Your task to perform on an android device: open app "Google Keep" (install if not already installed) Image 0: 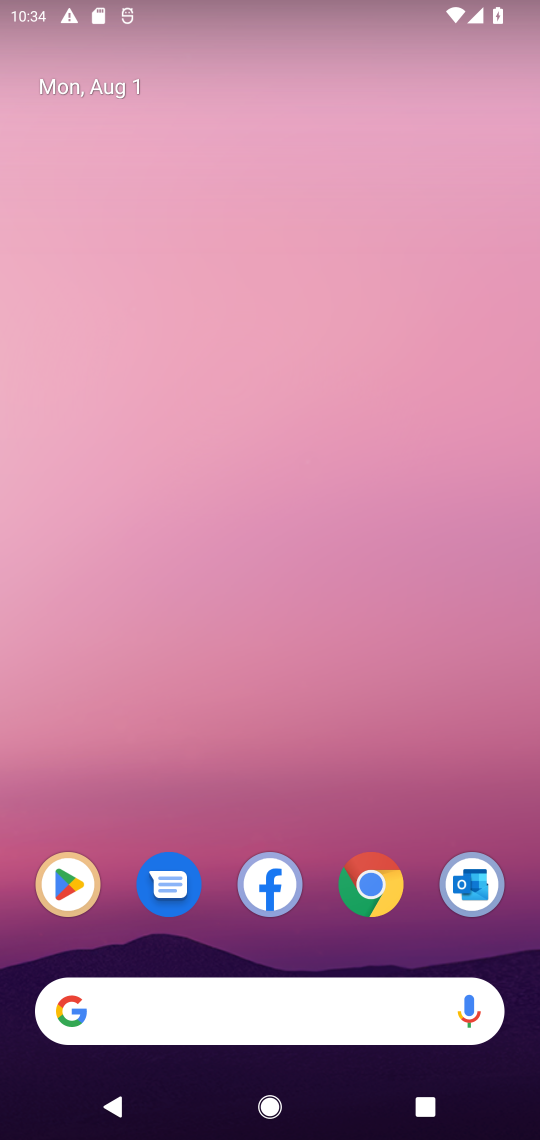
Step 0: click (82, 873)
Your task to perform on an android device: open app "Google Keep" (install if not already installed) Image 1: 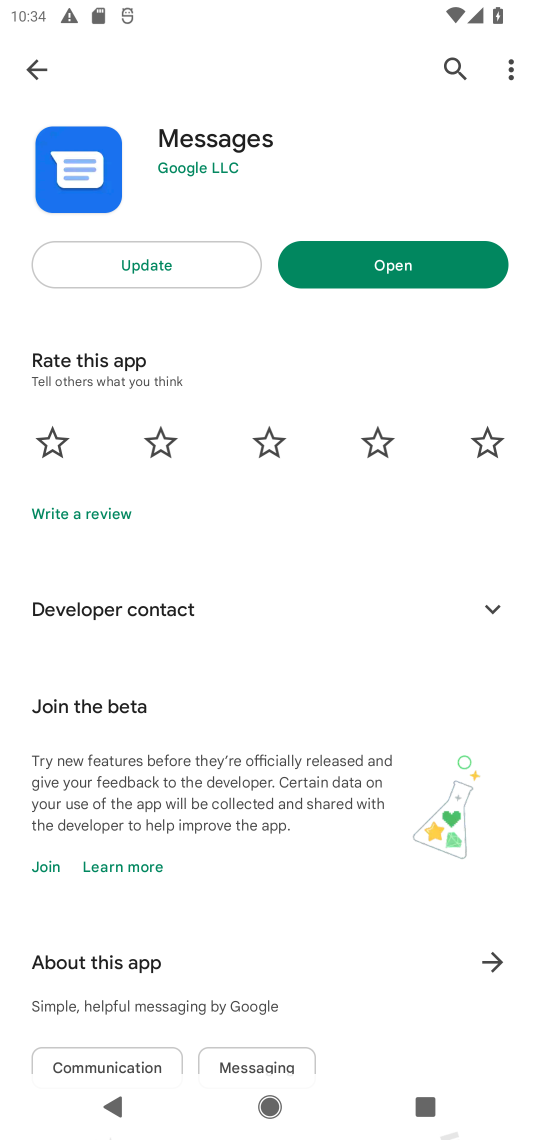
Step 1: click (442, 72)
Your task to perform on an android device: open app "Google Keep" (install if not already installed) Image 2: 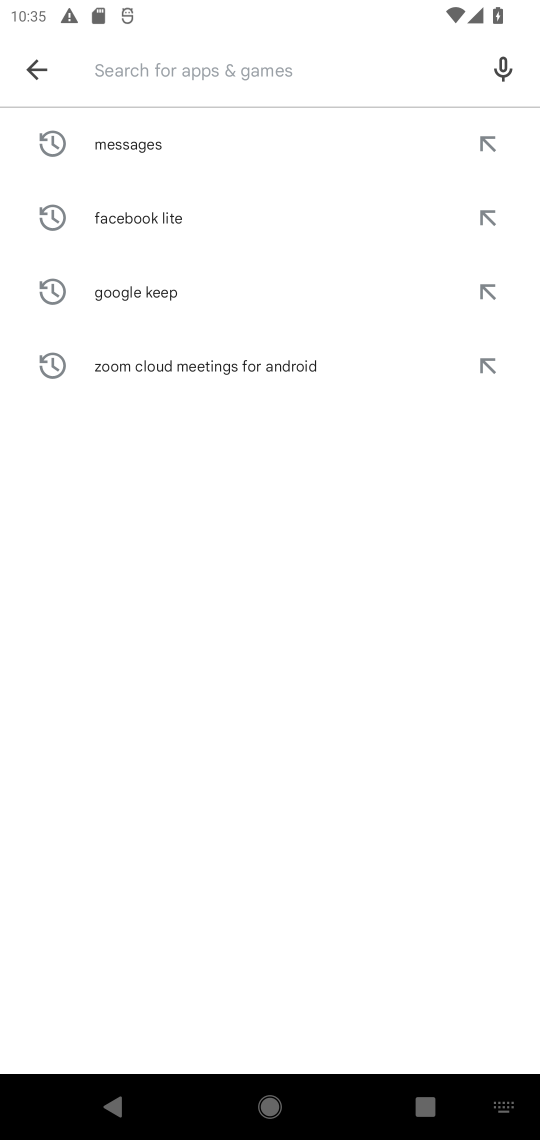
Step 2: type "google keep"
Your task to perform on an android device: open app "Google Keep" (install if not already installed) Image 3: 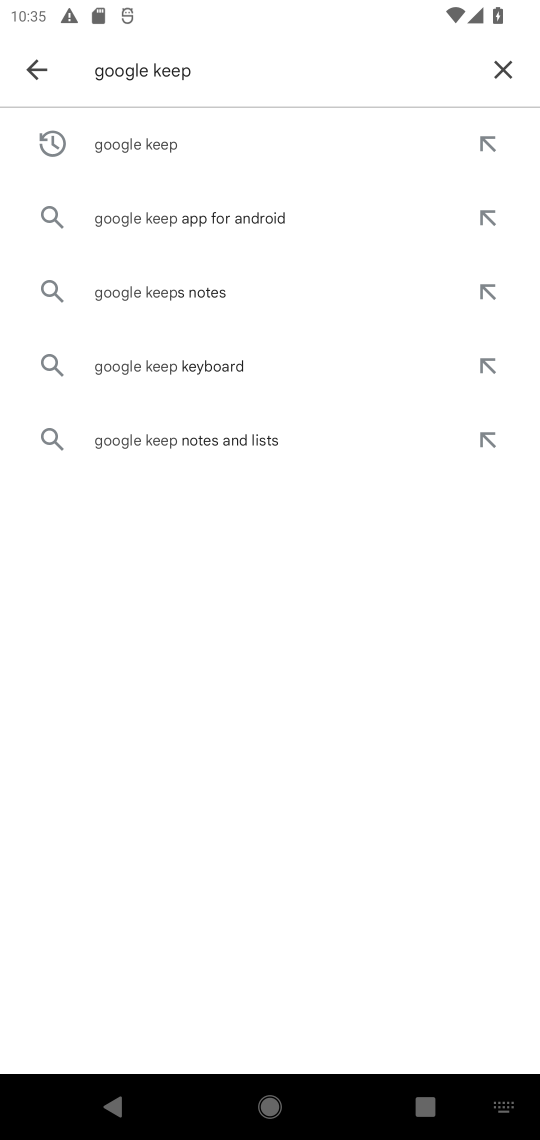
Step 3: click (140, 131)
Your task to perform on an android device: open app "Google Keep" (install if not already installed) Image 4: 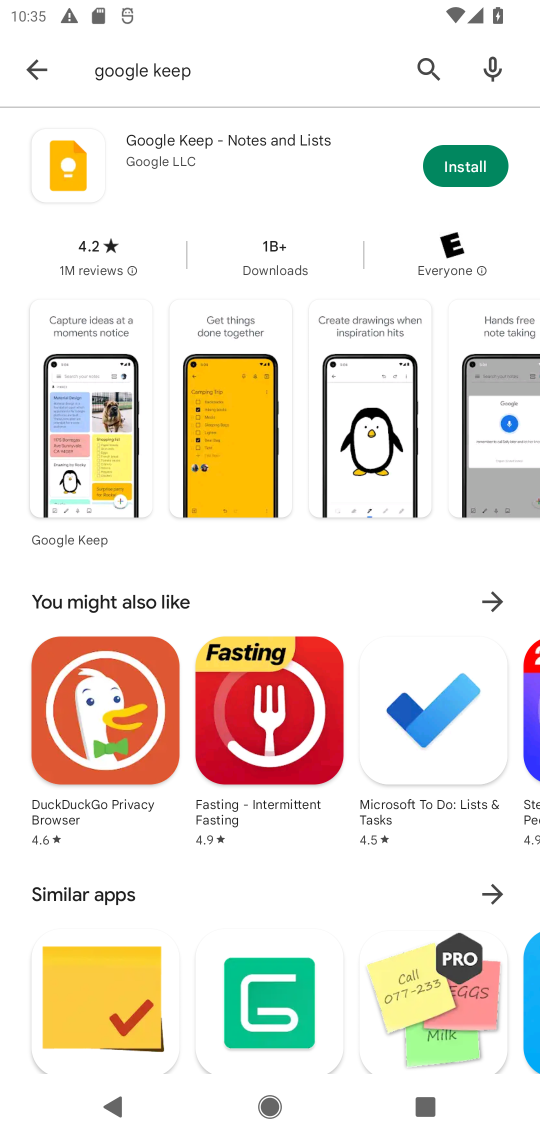
Step 4: click (154, 129)
Your task to perform on an android device: open app "Google Keep" (install if not already installed) Image 5: 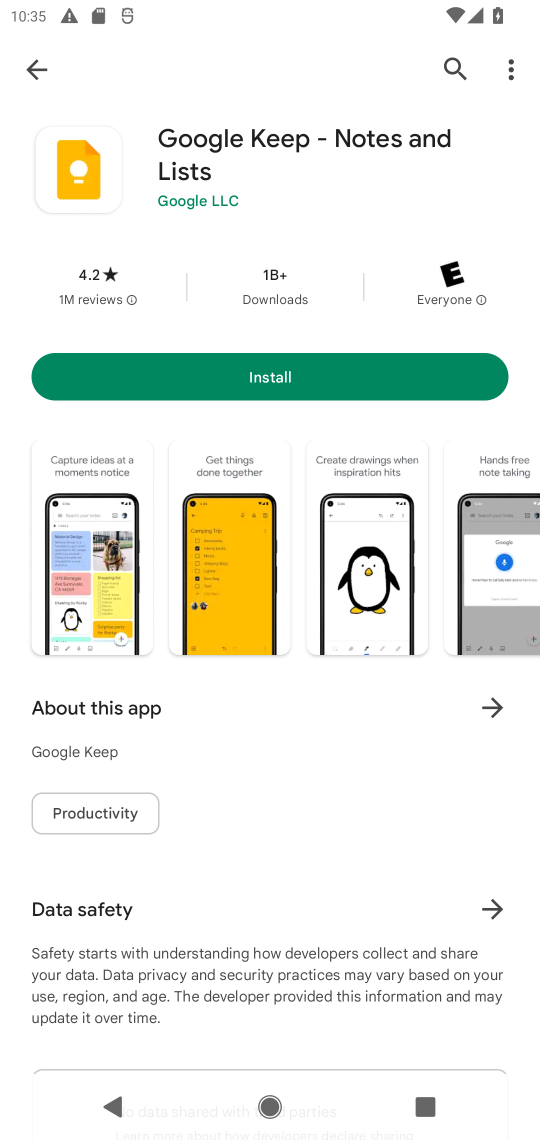
Step 5: click (466, 372)
Your task to perform on an android device: open app "Google Keep" (install if not already installed) Image 6: 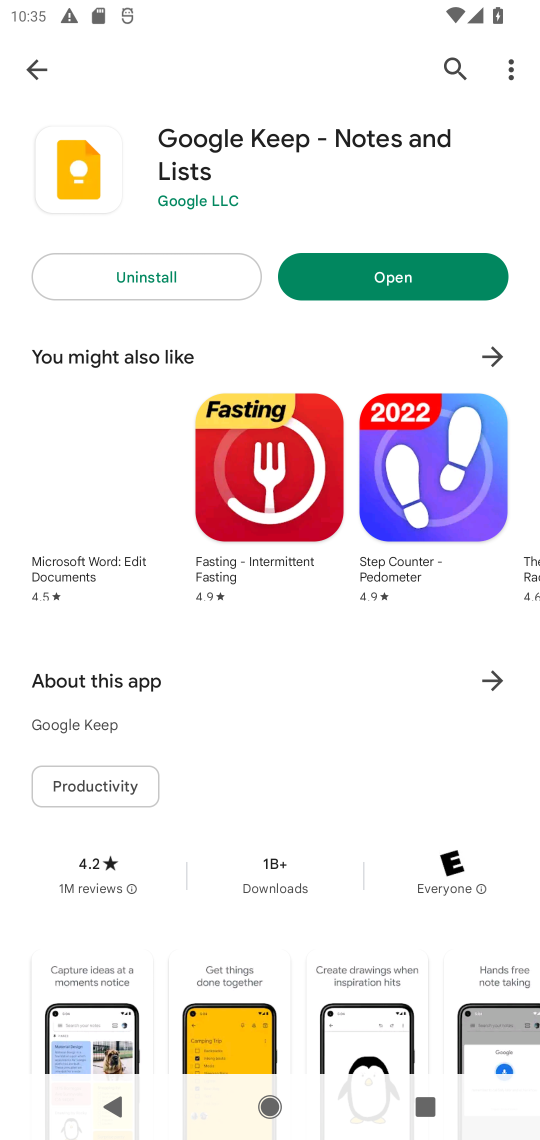
Step 6: click (403, 274)
Your task to perform on an android device: open app "Google Keep" (install if not already installed) Image 7: 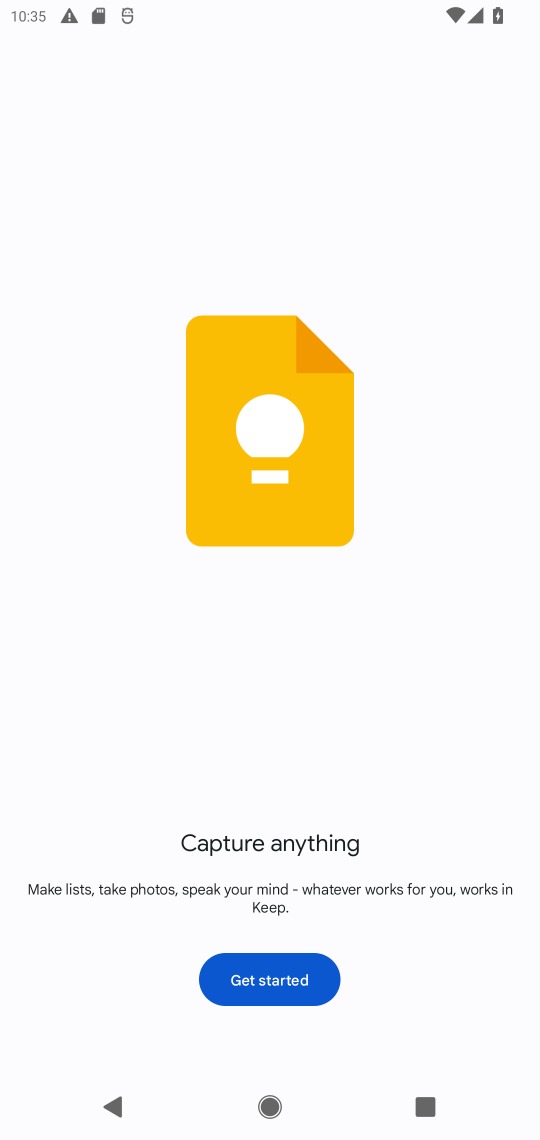
Step 7: task complete